Your task to perform on an android device: turn off wifi Image 0: 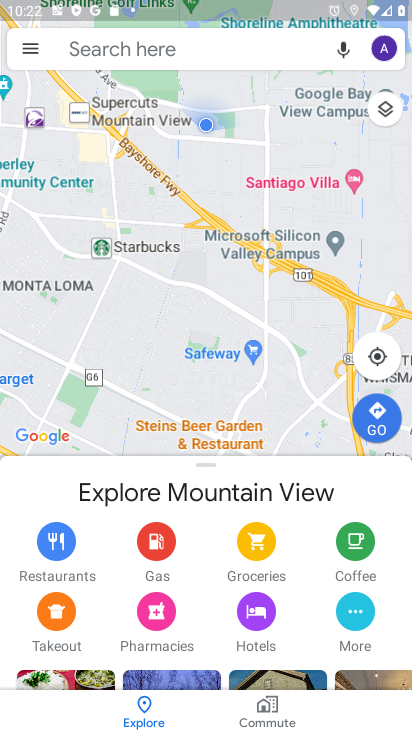
Step 0: press home button
Your task to perform on an android device: turn off wifi Image 1: 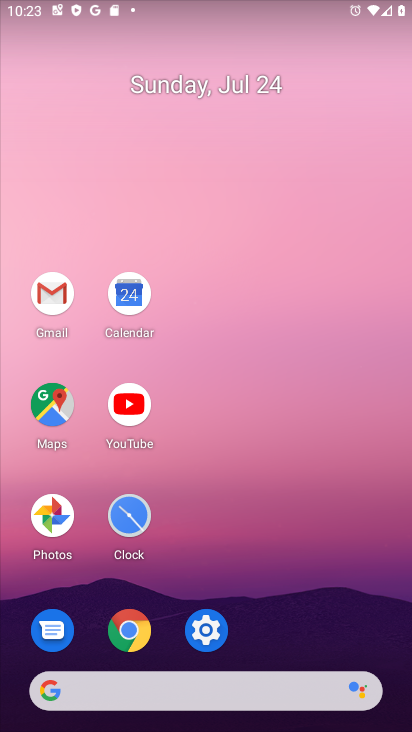
Step 1: click (206, 626)
Your task to perform on an android device: turn off wifi Image 2: 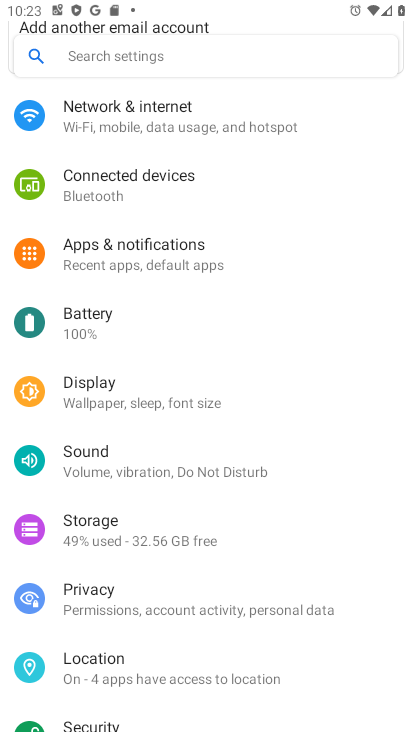
Step 2: click (109, 115)
Your task to perform on an android device: turn off wifi Image 3: 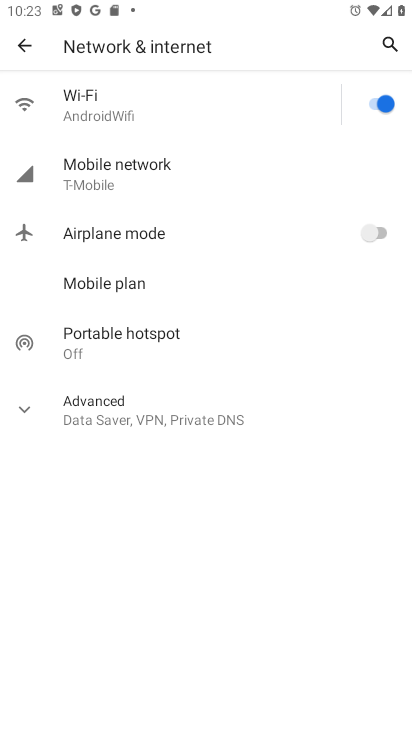
Step 3: click (380, 104)
Your task to perform on an android device: turn off wifi Image 4: 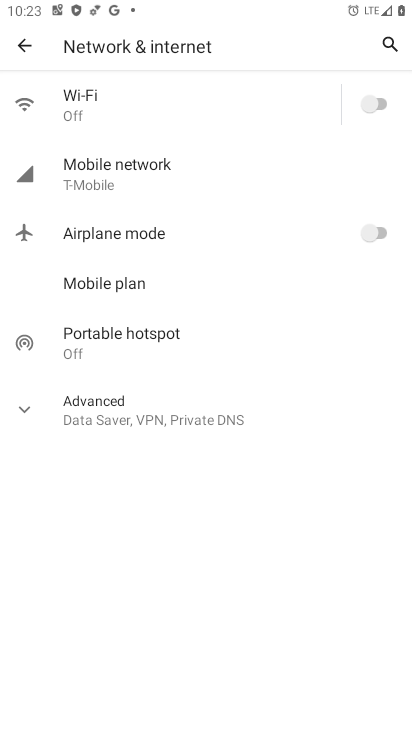
Step 4: task complete